Your task to perform on an android device: Turn off the flashlight Image 0: 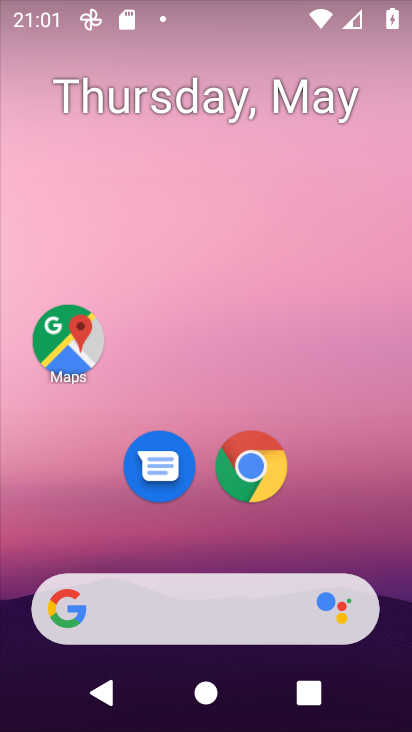
Step 0: drag from (337, 538) to (327, 265)
Your task to perform on an android device: Turn off the flashlight Image 1: 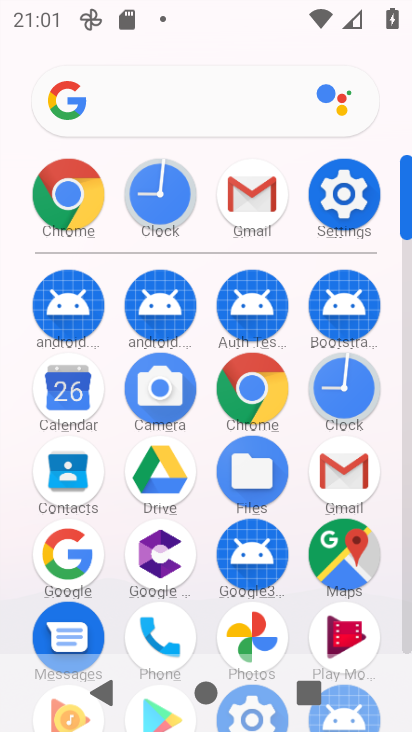
Step 1: click (357, 220)
Your task to perform on an android device: Turn off the flashlight Image 2: 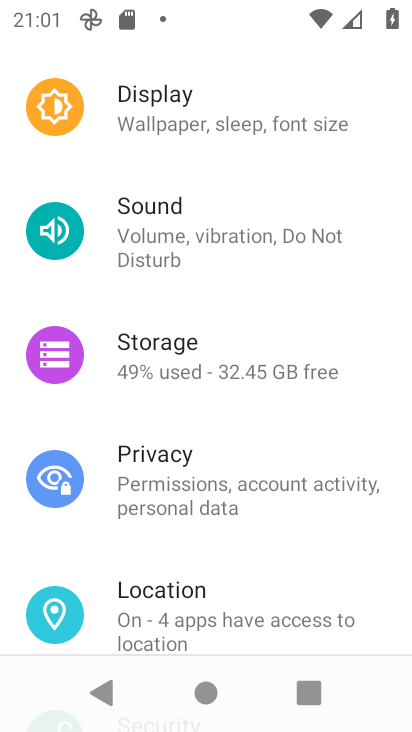
Step 2: task complete